Your task to perform on an android device: Go to Maps Image 0: 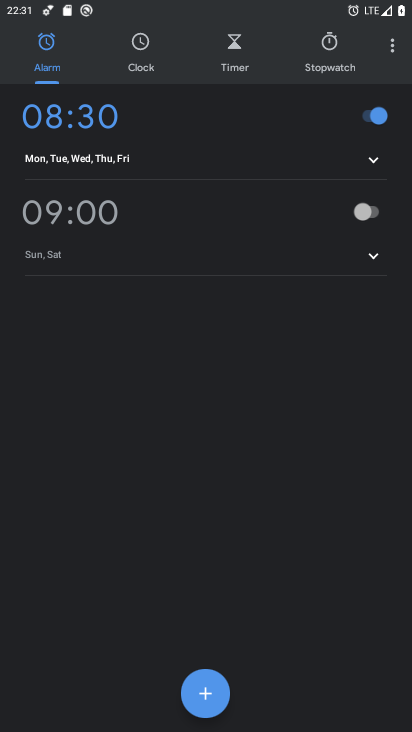
Step 0: press home button
Your task to perform on an android device: Go to Maps Image 1: 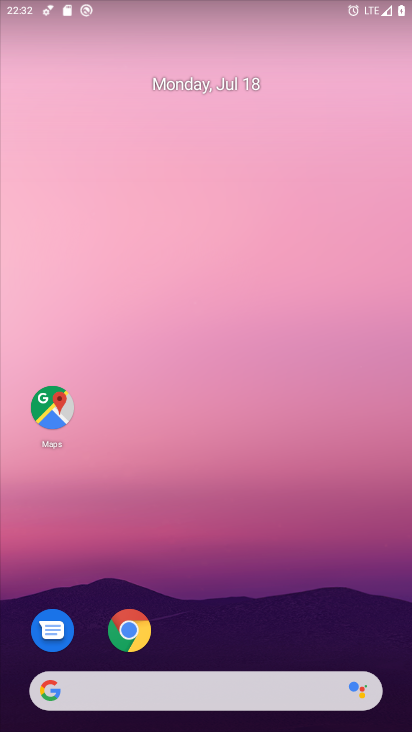
Step 1: click (64, 402)
Your task to perform on an android device: Go to Maps Image 2: 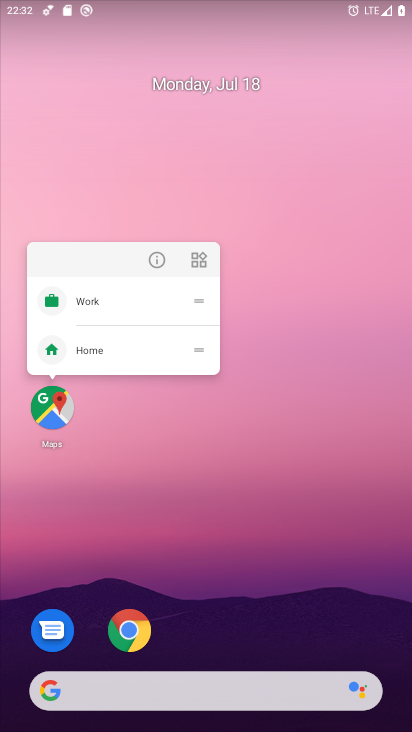
Step 2: click (54, 408)
Your task to perform on an android device: Go to Maps Image 3: 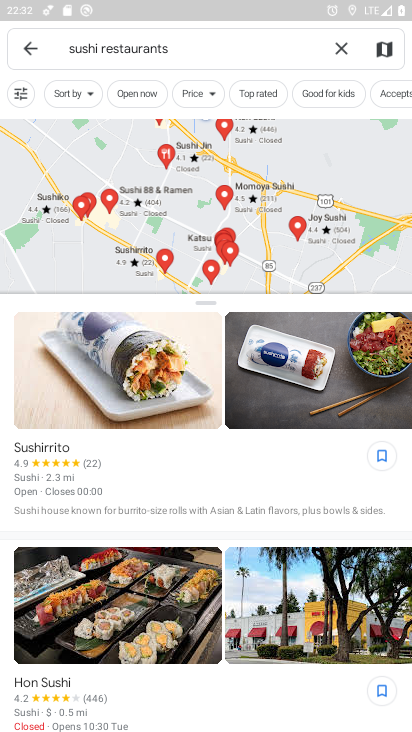
Step 3: task complete